Your task to perform on an android device: Go to internet settings Image 0: 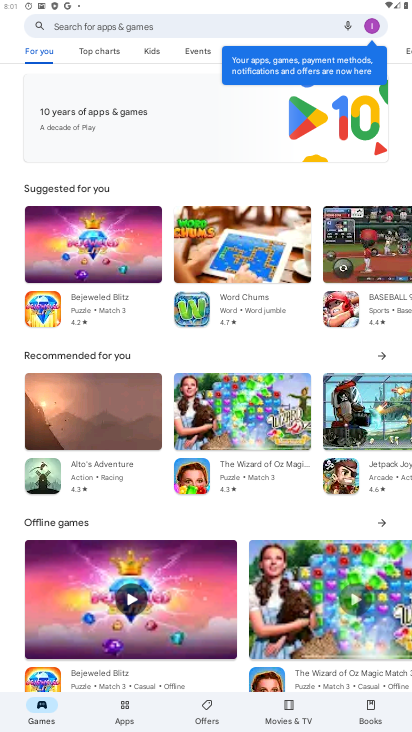
Step 0: press home button
Your task to perform on an android device: Go to internet settings Image 1: 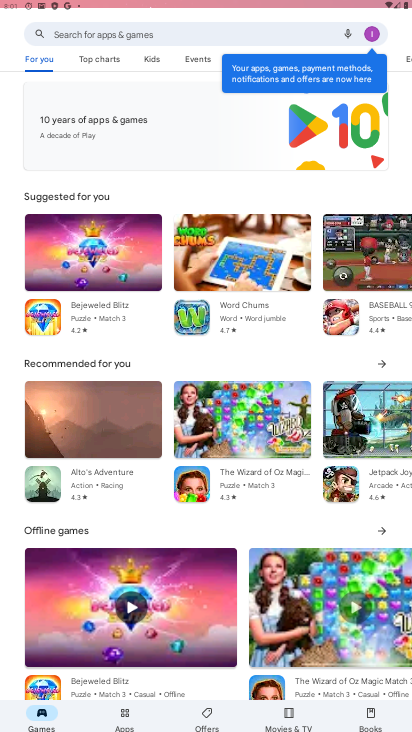
Step 1: drag from (196, 638) to (337, 167)
Your task to perform on an android device: Go to internet settings Image 2: 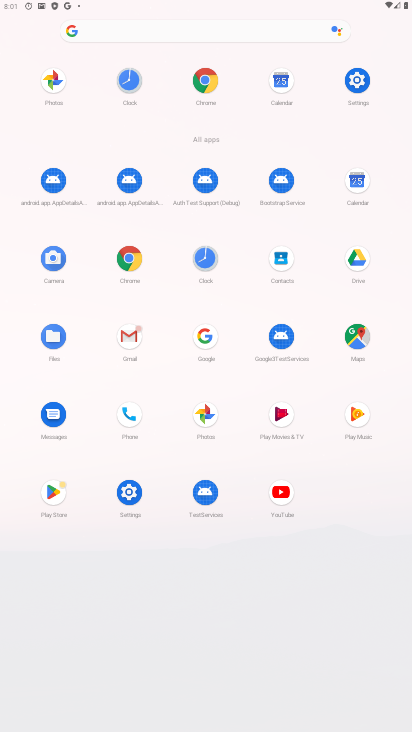
Step 2: click (359, 87)
Your task to perform on an android device: Go to internet settings Image 3: 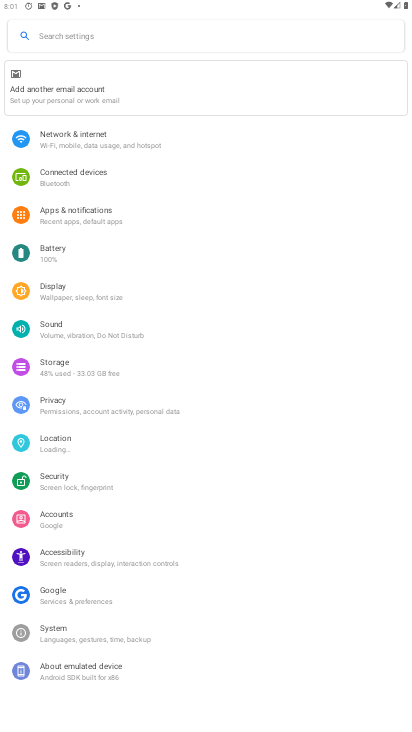
Step 3: click (110, 131)
Your task to perform on an android device: Go to internet settings Image 4: 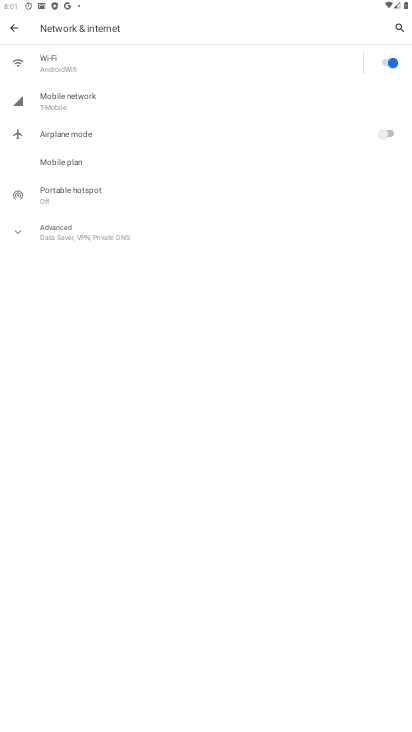
Step 4: task complete